Your task to perform on an android device: toggle translation in the chrome app Image 0: 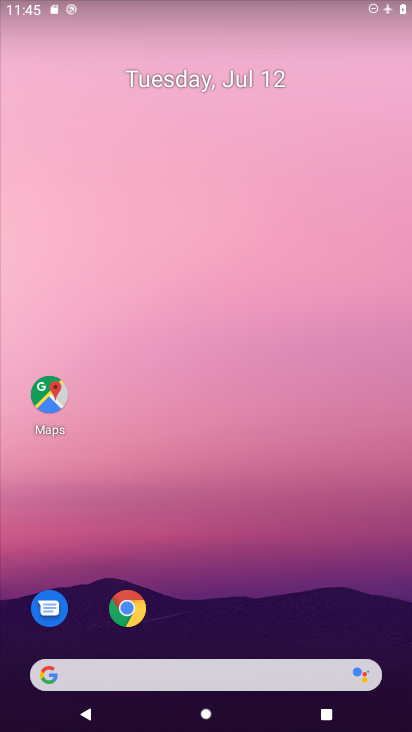
Step 0: drag from (243, 720) to (240, 166)
Your task to perform on an android device: toggle translation in the chrome app Image 1: 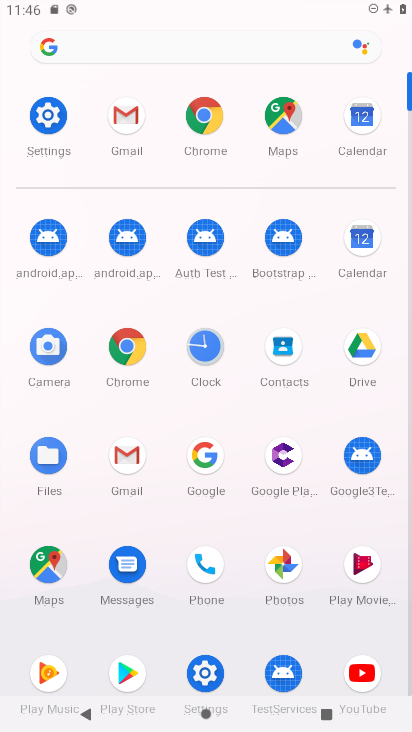
Step 1: click (204, 115)
Your task to perform on an android device: toggle translation in the chrome app Image 2: 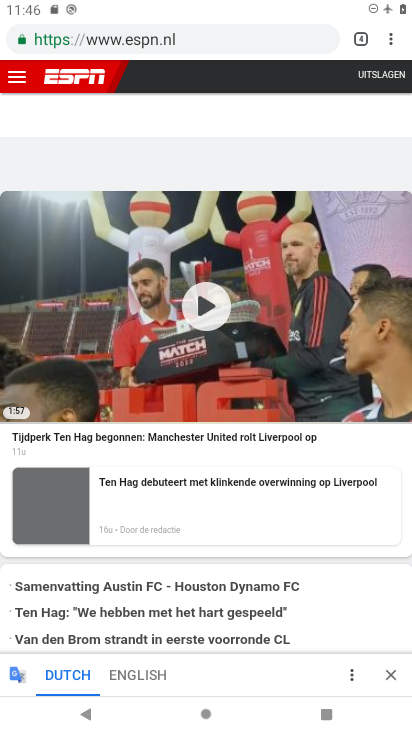
Step 2: click (389, 42)
Your task to perform on an android device: toggle translation in the chrome app Image 3: 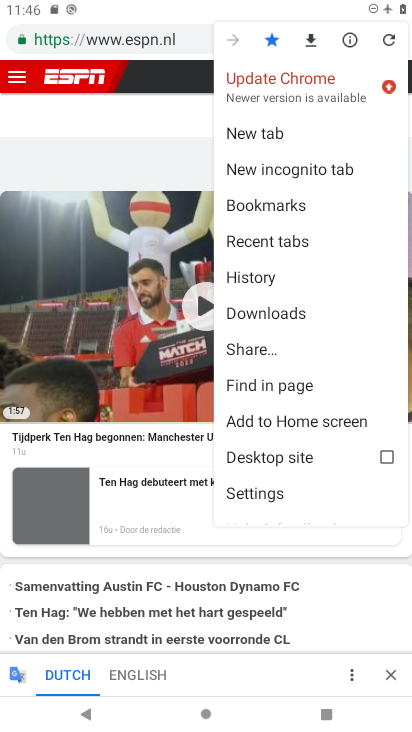
Step 3: click (251, 492)
Your task to perform on an android device: toggle translation in the chrome app Image 4: 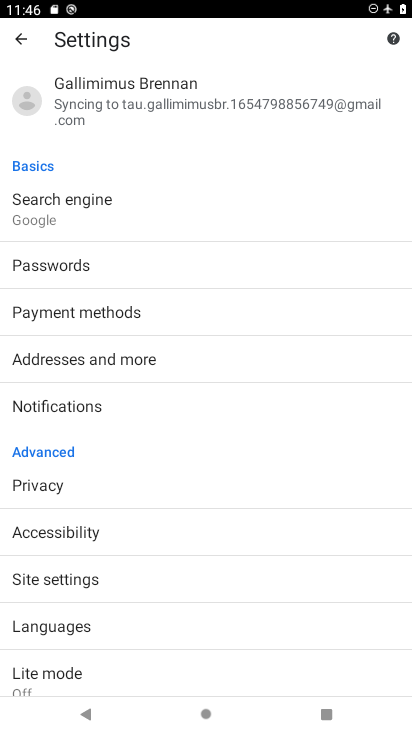
Step 4: click (62, 625)
Your task to perform on an android device: toggle translation in the chrome app Image 5: 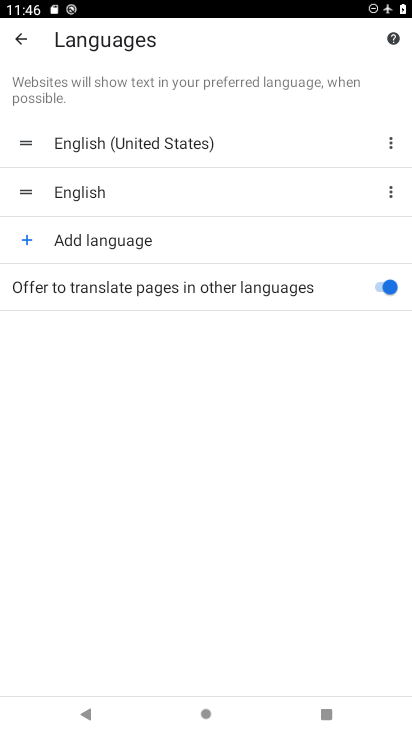
Step 5: click (380, 284)
Your task to perform on an android device: toggle translation in the chrome app Image 6: 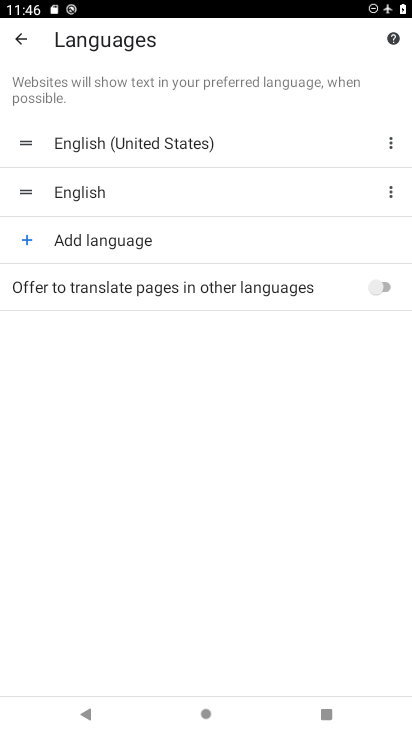
Step 6: task complete